Your task to perform on an android device: toggle location history Image 0: 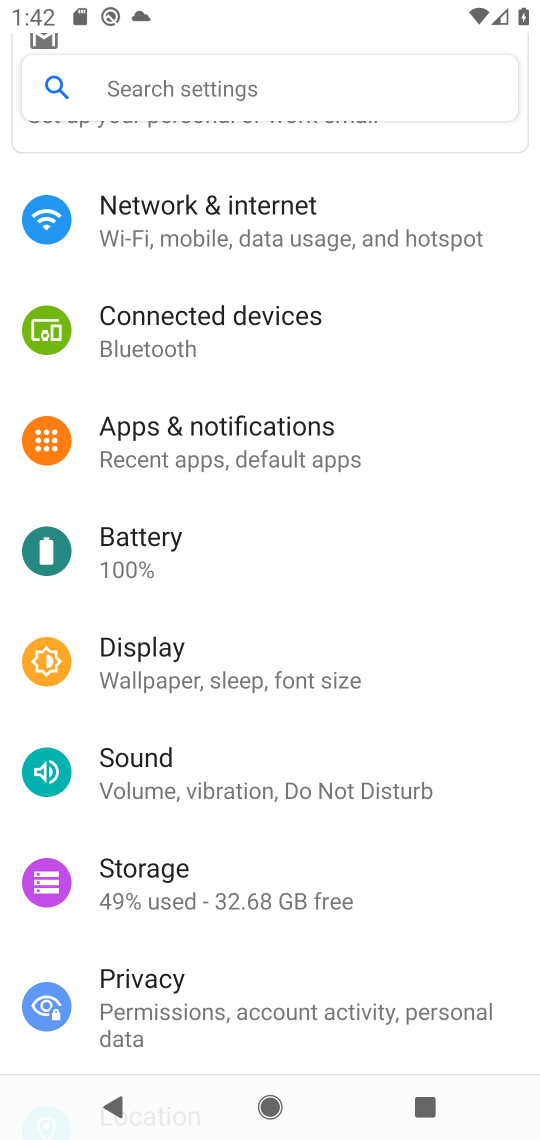
Step 0: press home button
Your task to perform on an android device: toggle location history Image 1: 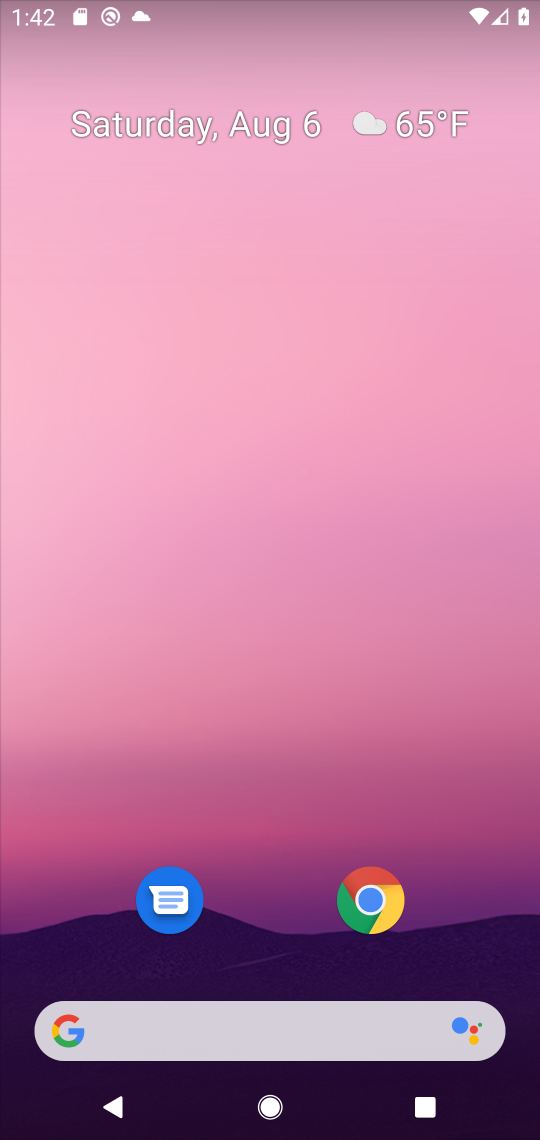
Step 1: drag from (265, 931) to (268, 137)
Your task to perform on an android device: toggle location history Image 2: 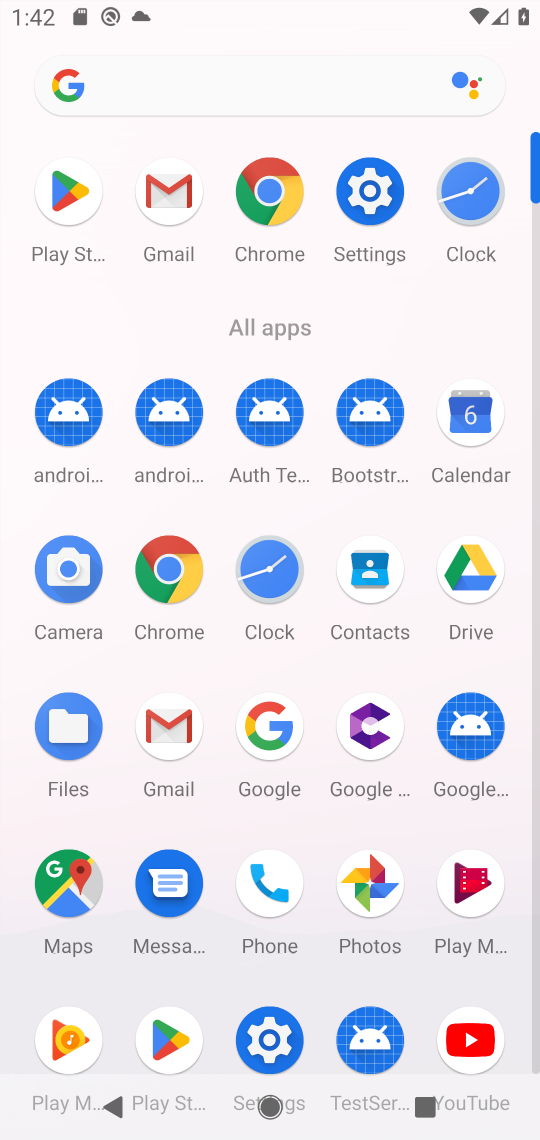
Step 2: click (387, 181)
Your task to perform on an android device: toggle location history Image 3: 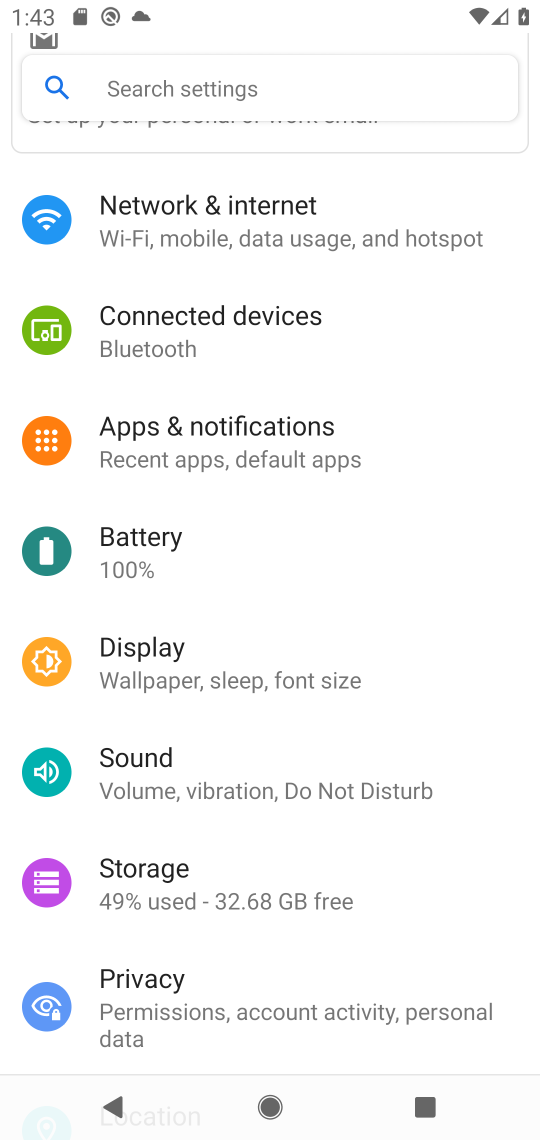
Step 3: drag from (330, 960) to (269, 331)
Your task to perform on an android device: toggle location history Image 4: 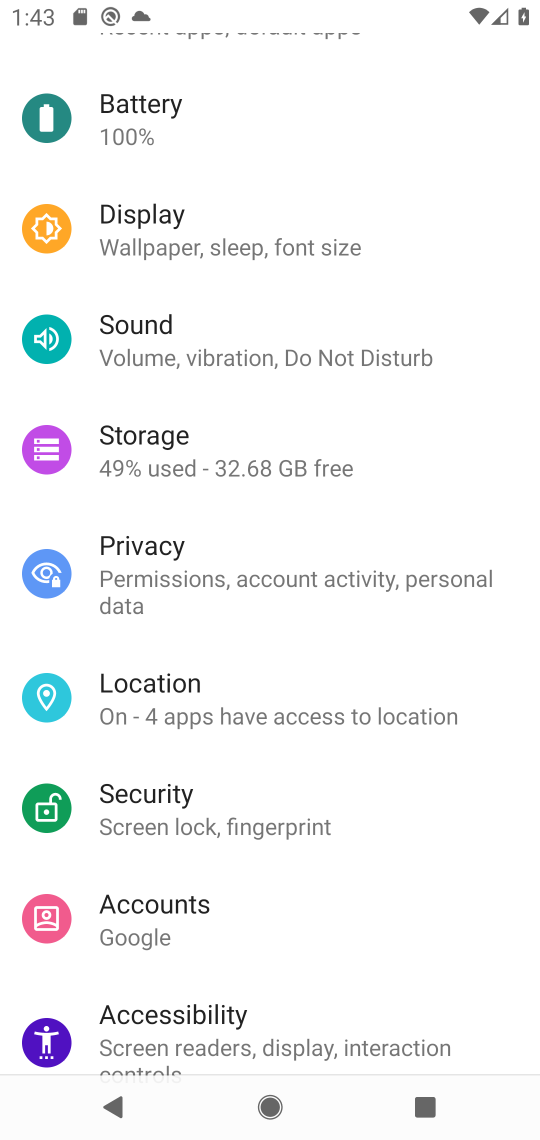
Step 4: click (242, 690)
Your task to perform on an android device: toggle location history Image 5: 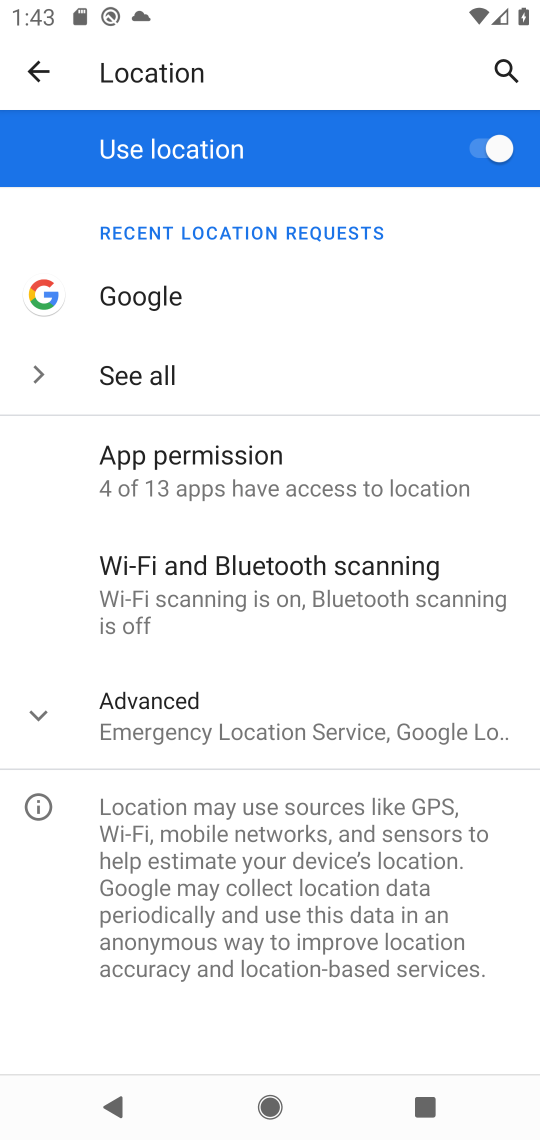
Step 5: click (27, 715)
Your task to perform on an android device: toggle location history Image 6: 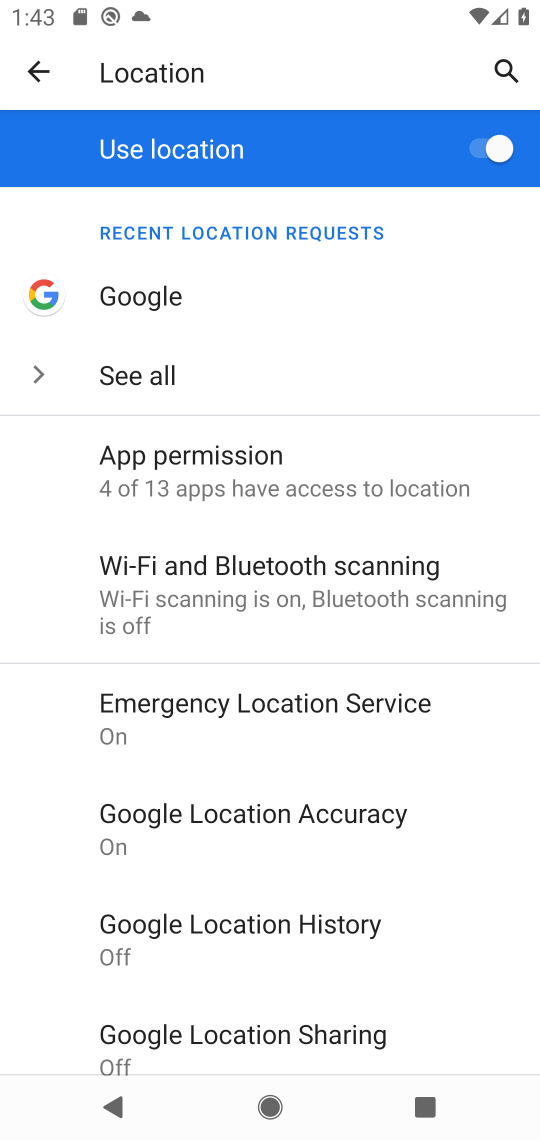
Step 6: click (275, 943)
Your task to perform on an android device: toggle location history Image 7: 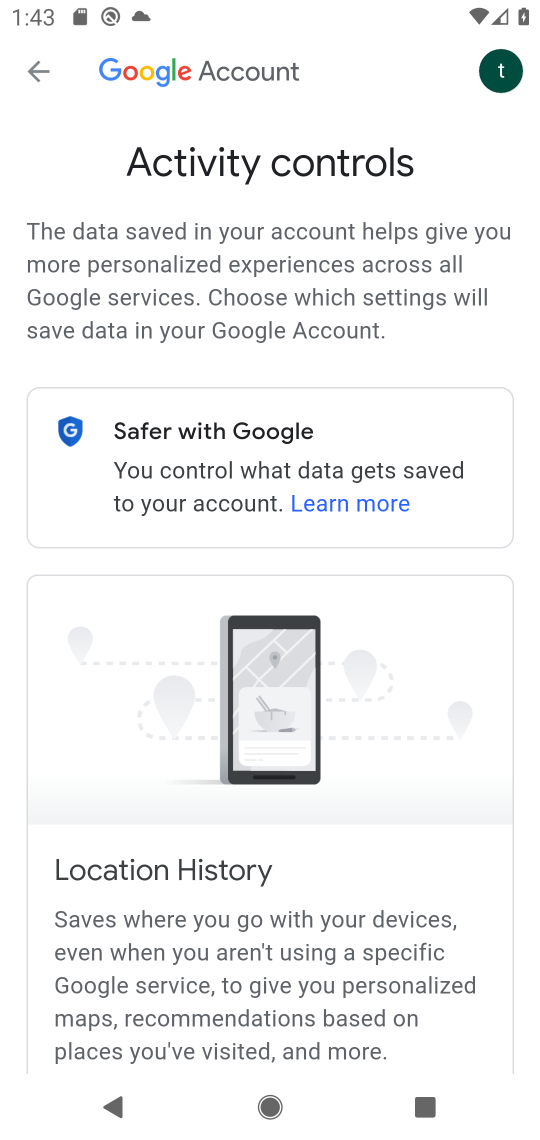
Step 7: drag from (355, 973) to (360, 183)
Your task to perform on an android device: toggle location history Image 8: 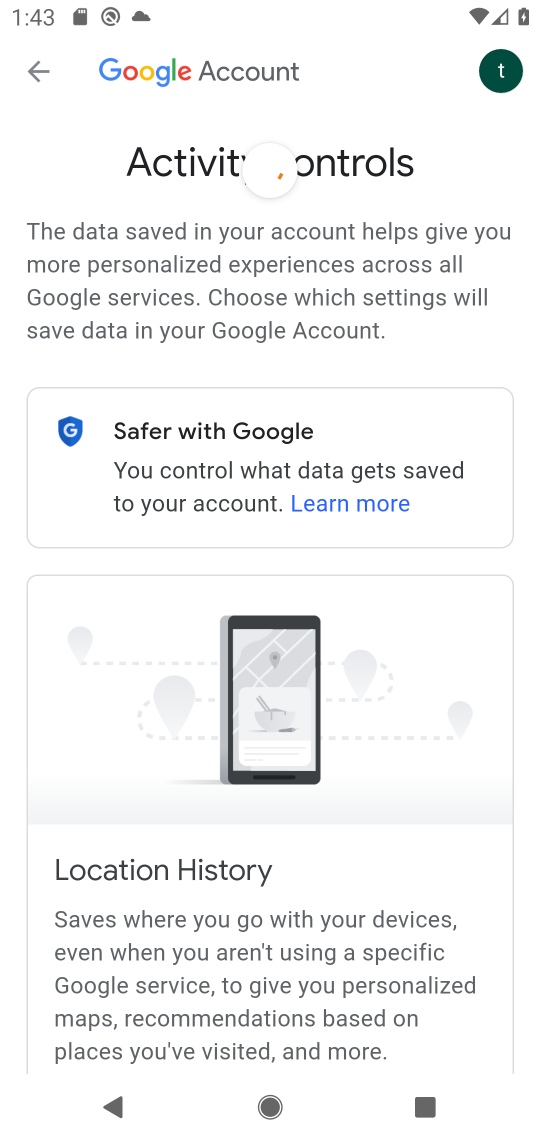
Step 8: drag from (348, 976) to (272, 159)
Your task to perform on an android device: toggle location history Image 9: 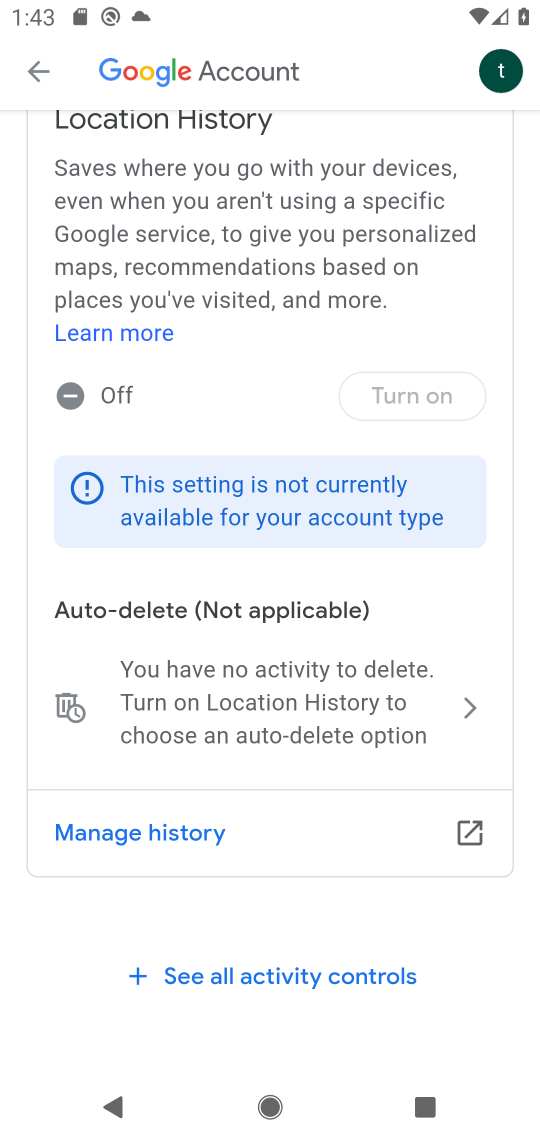
Step 9: click (398, 403)
Your task to perform on an android device: toggle location history Image 10: 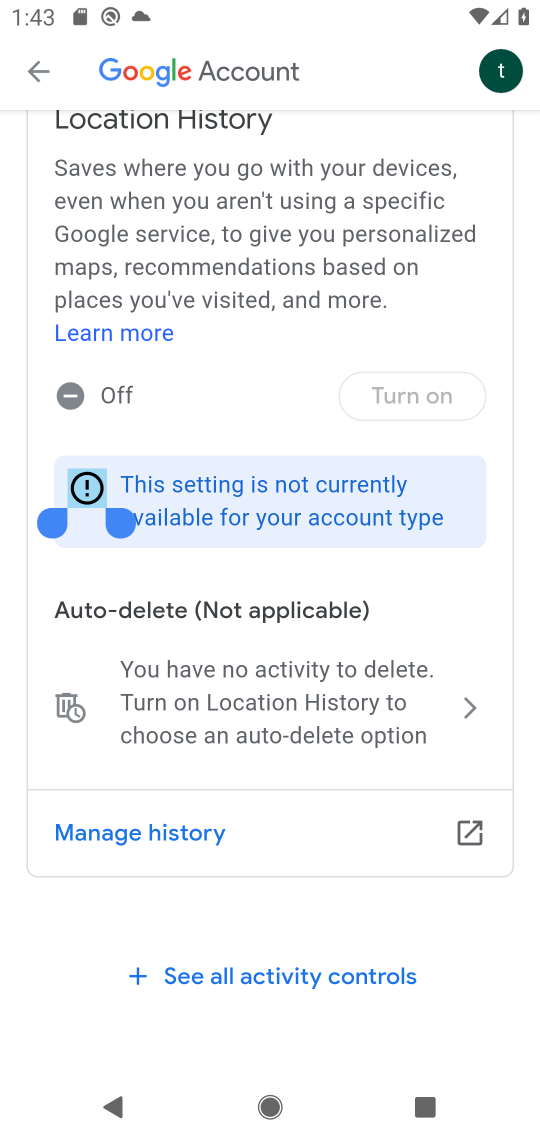
Step 10: click (84, 389)
Your task to perform on an android device: toggle location history Image 11: 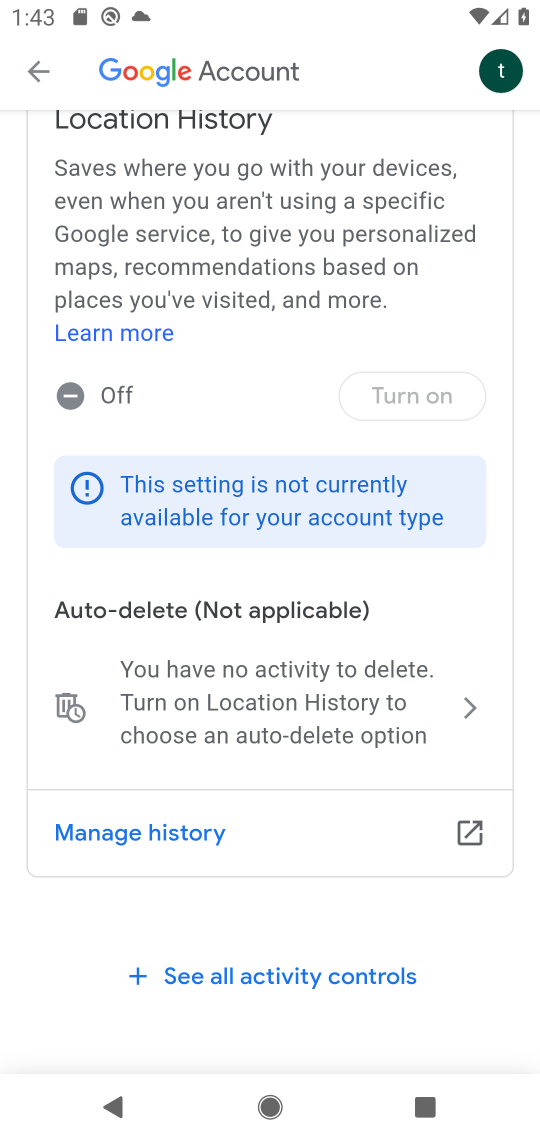
Step 11: click (389, 403)
Your task to perform on an android device: toggle location history Image 12: 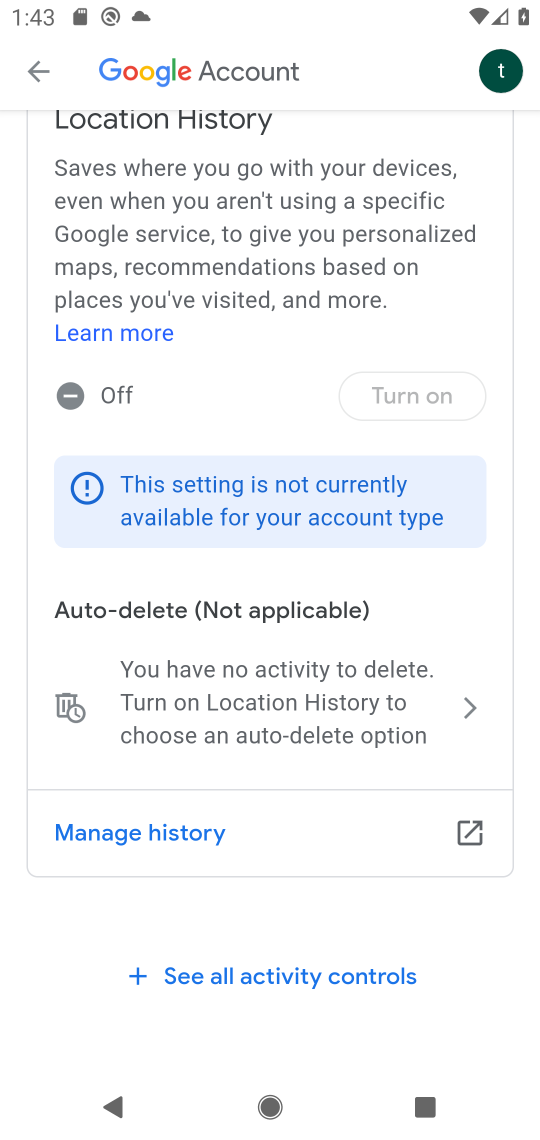
Step 12: task complete